Your task to perform on an android device: turn off translation in the chrome app Image 0: 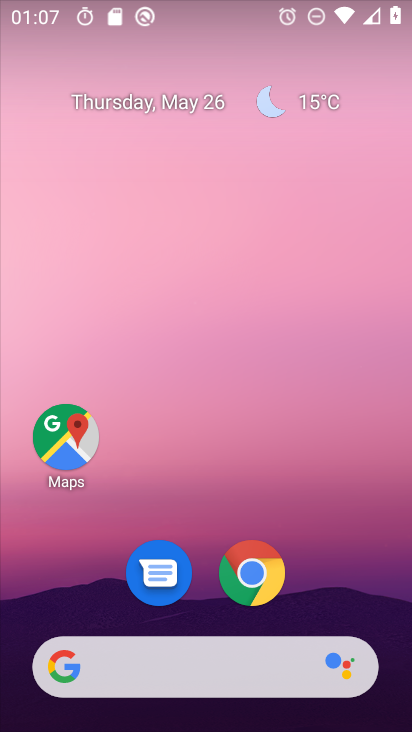
Step 0: click (256, 573)
Your task to perform on an android device: turn off translation in the chrome app Image 1: 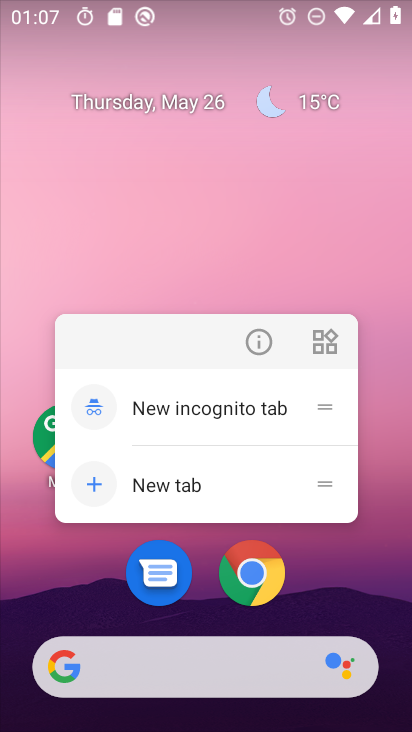
Step 1: click (256, 573)
Your task to perform on an android device: turn off translation in the chrome app Image 2: 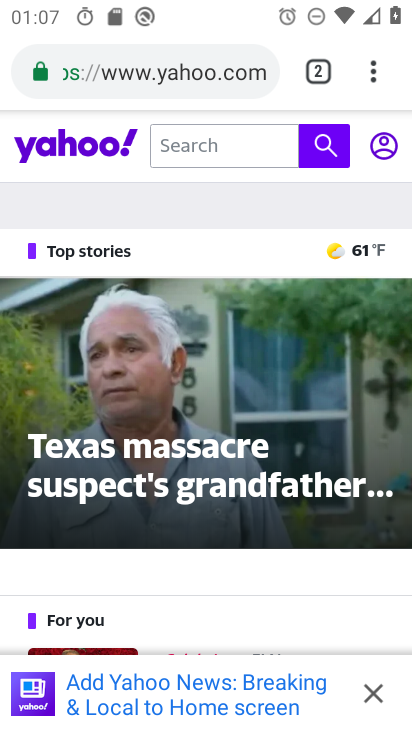
Step 2: click (378, 71)
Your task to perform on an android device: turn off translation in the chrome app Image 3: 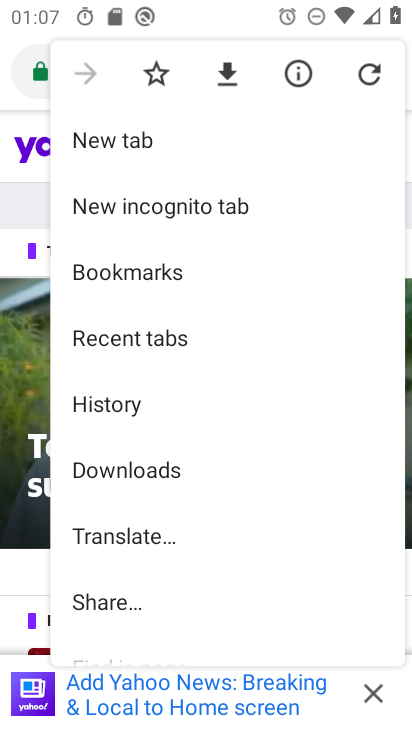
Step 3: drag from (230, 514) to (201, 126)
Your task to perform on an android device: turn off translation in the chrome app Image 4: 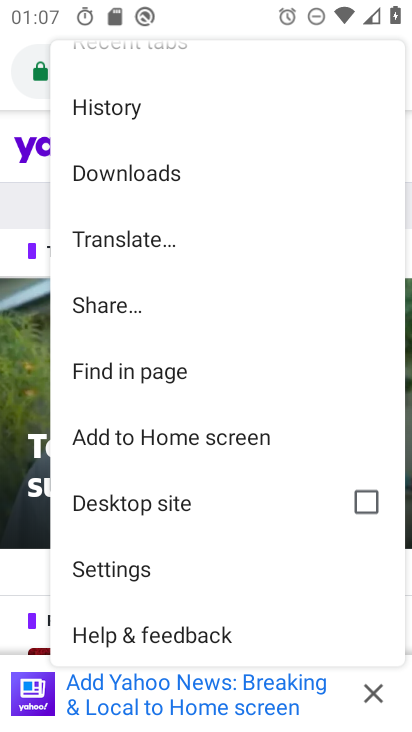
Step 4: click (111, 567)
Your task to perform on an android device: turn off translation in the chrome app Image 5: 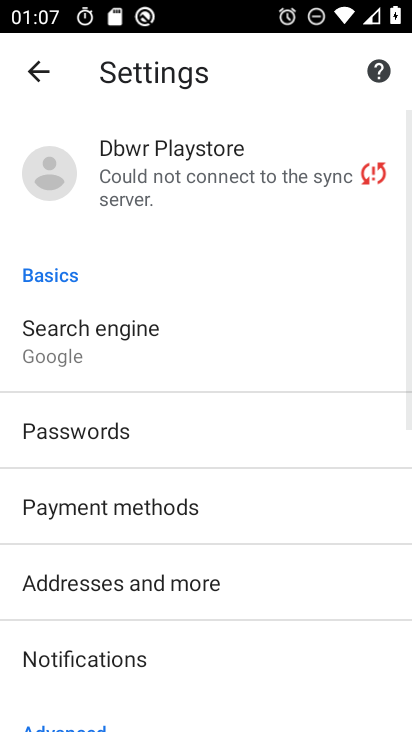
Step 5: drag from (207, 562) to (219, 200)
Your task to perform on an android device: turn off translation in the chrome app Image 6: 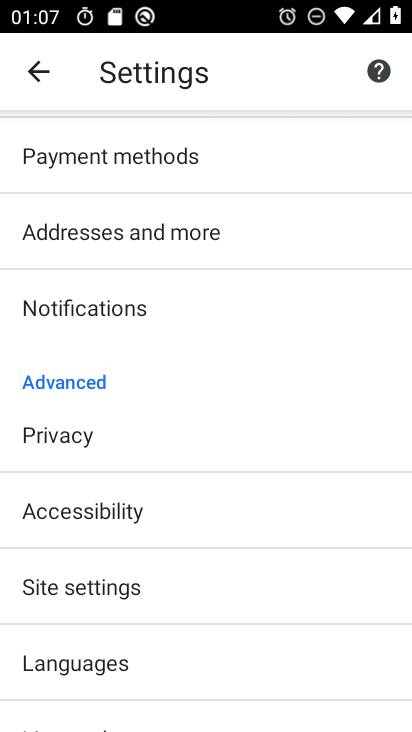
Step 6: drag from (170, 594) to (183, 458)
Your task to perform on an android device: turn off translation in the chrome app Image 7: 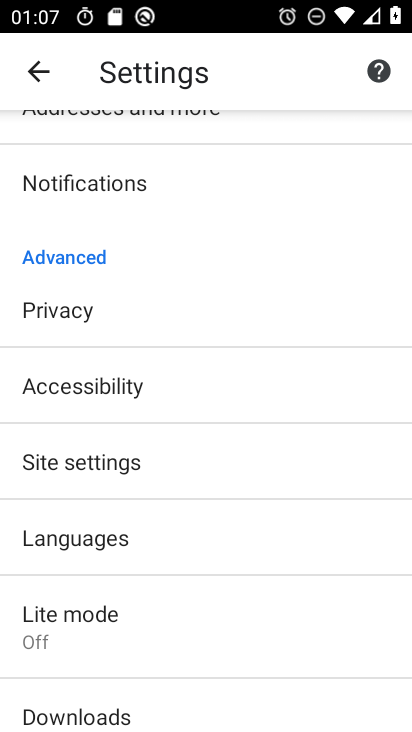
Step 7: click (110, 537)
Your task to perform on an android device: turn off translation in the chrome app Image 8: 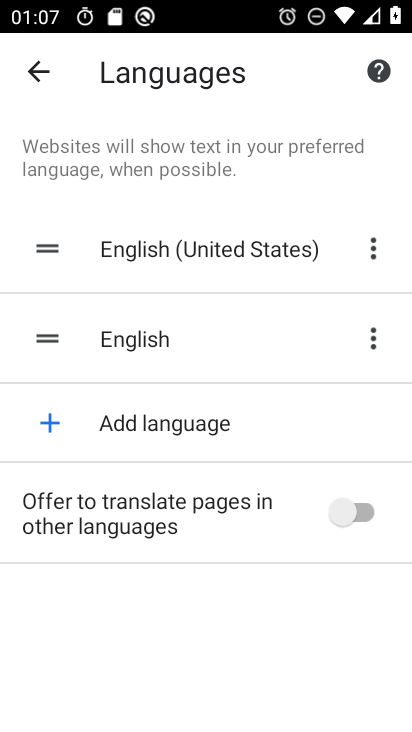
Step 8: task complete